Your task to perform on an android device: Open the calendar and show me this week's events? Image 0: 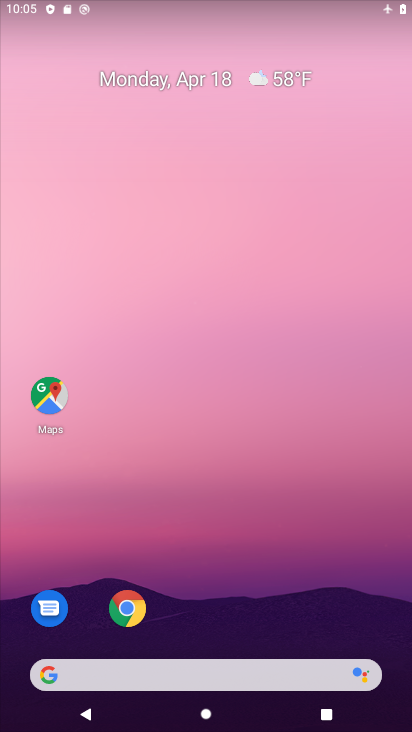
Step 0: drag from (297, 586) to (245, 196)
Your task to perform on an android device: Open the calendar and show me this week's events? Image 1: 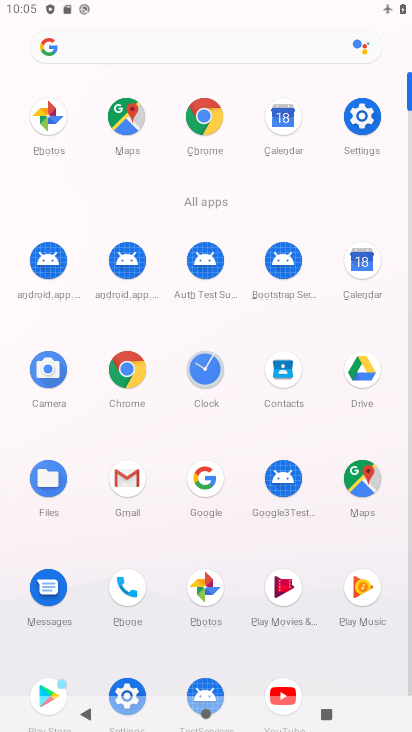
Step 1: click (361, 261)
Your task to perform on an android device: Open the calendar and show me this week's events? Image 2: 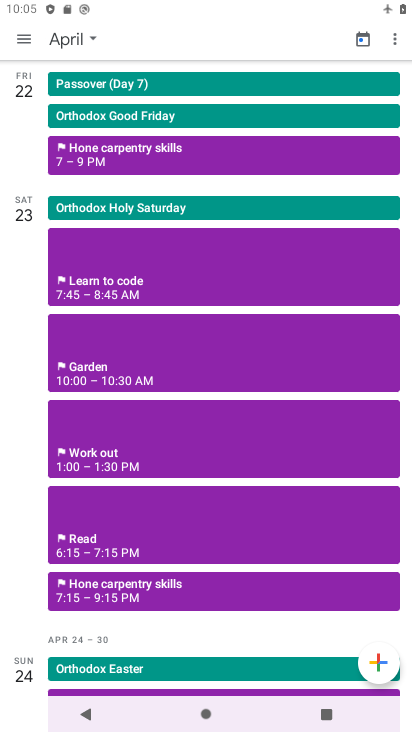
Step 2: click (27, 45)
Your task to perform on an android device: Open the calendar and show me this week's events? Image 3: 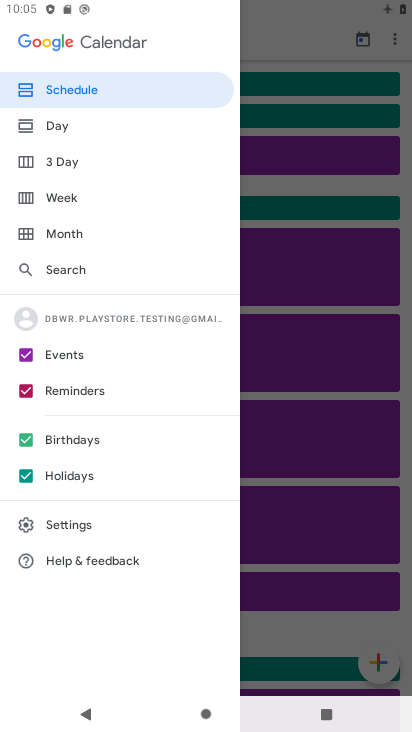
Step 3: click (110, 209)
Your task to perform on an android device: Open the calendar and show me this week's events? Image 4: 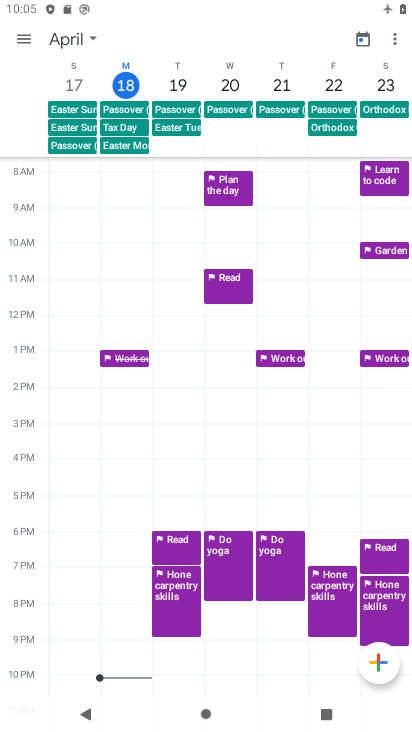
Step 4: task complete